Your task to perform on an android device: turn off location history Image 0: 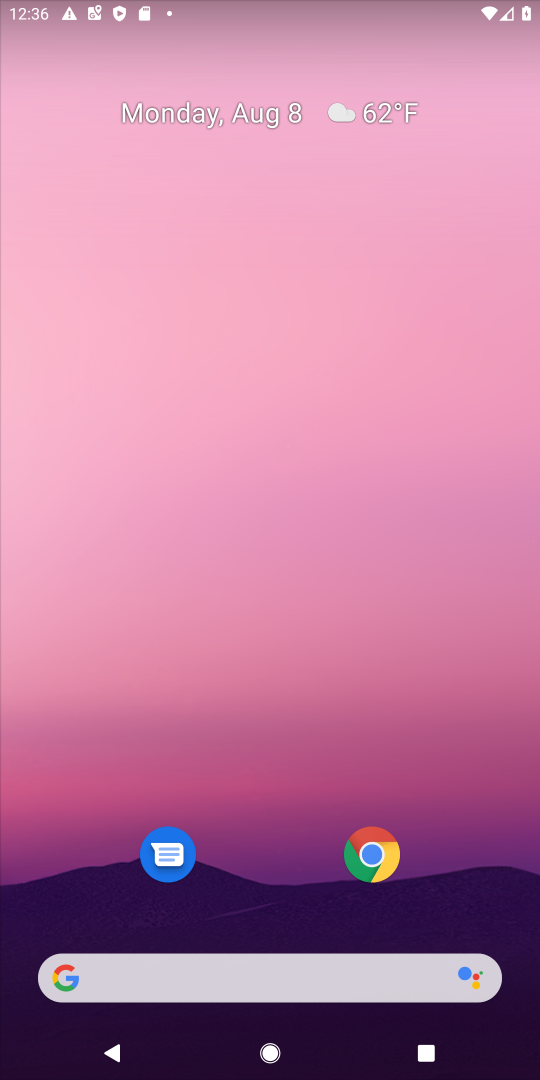
Step 0: drag from (312, 923) to (264, 200)
Your task to perform on an android device: turn off location history Image 1: 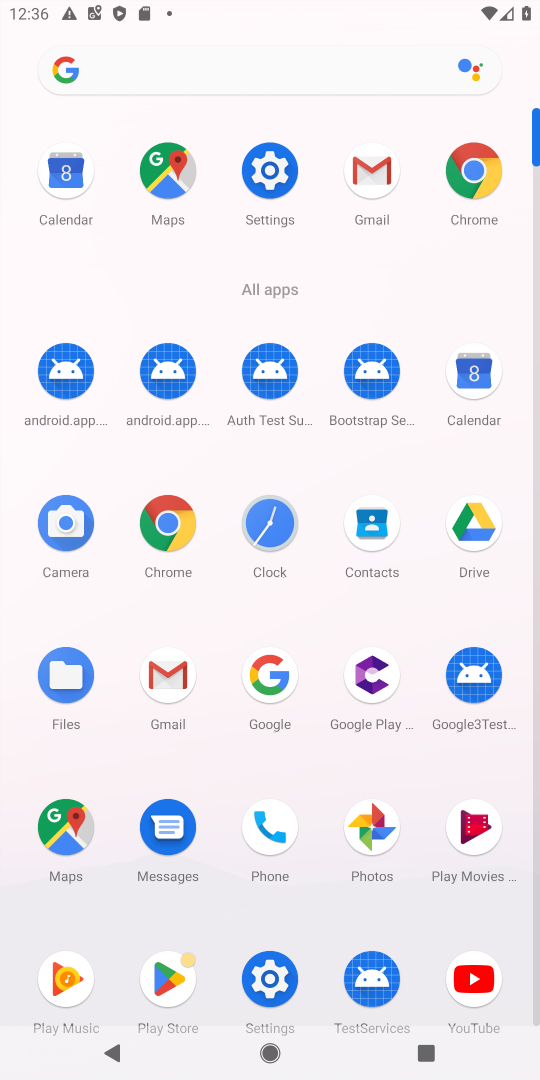
Step 1: click (279, 176)
Your task to perform on an android device: turn off location history Image 2: 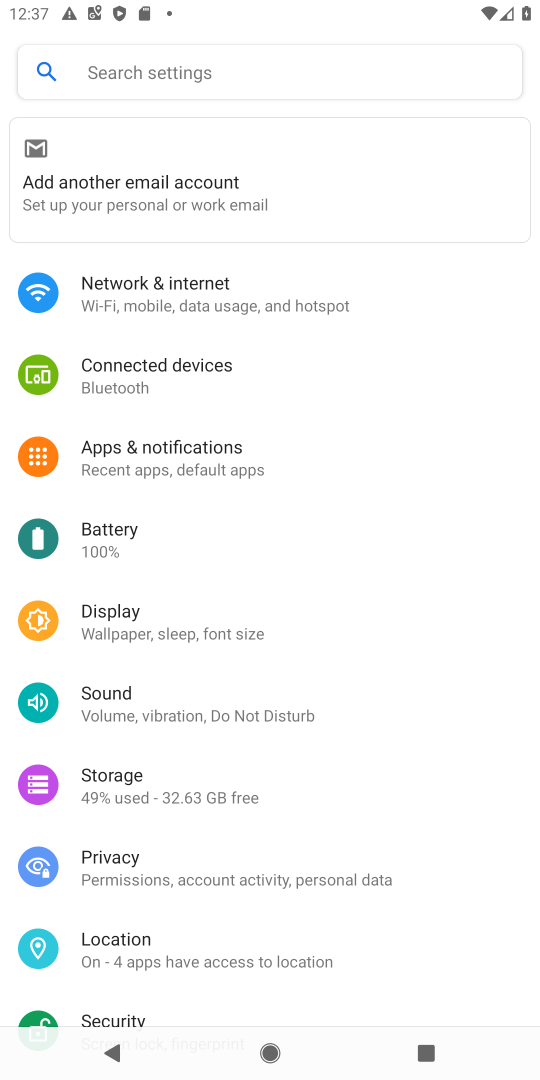
Step 2: click (133, 940)
Your task to perform on an android device: turn off location history Image 3: 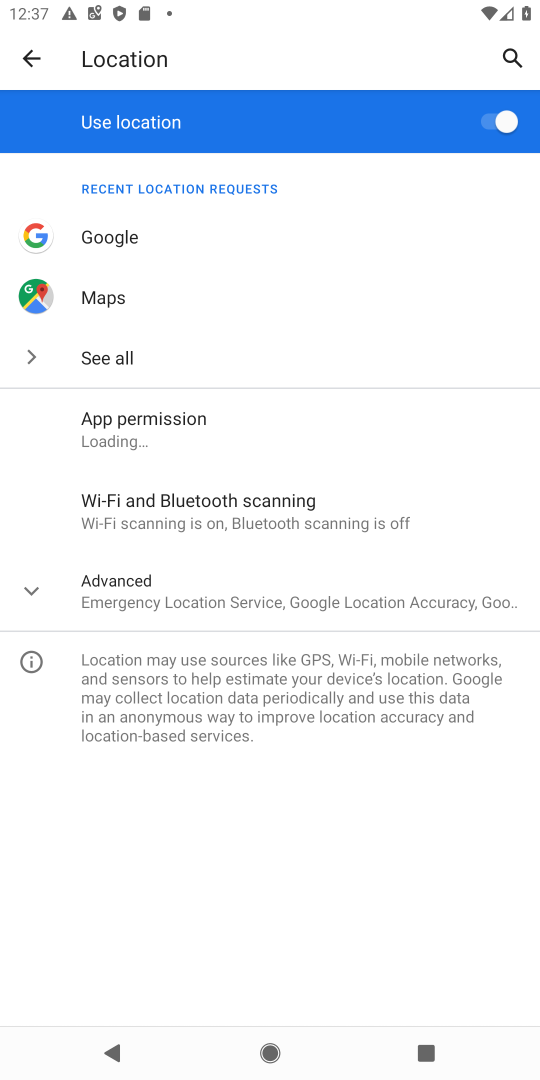
Step 3: click (99, 588)
Your task to perform on an android device: turn off location history Image 4: 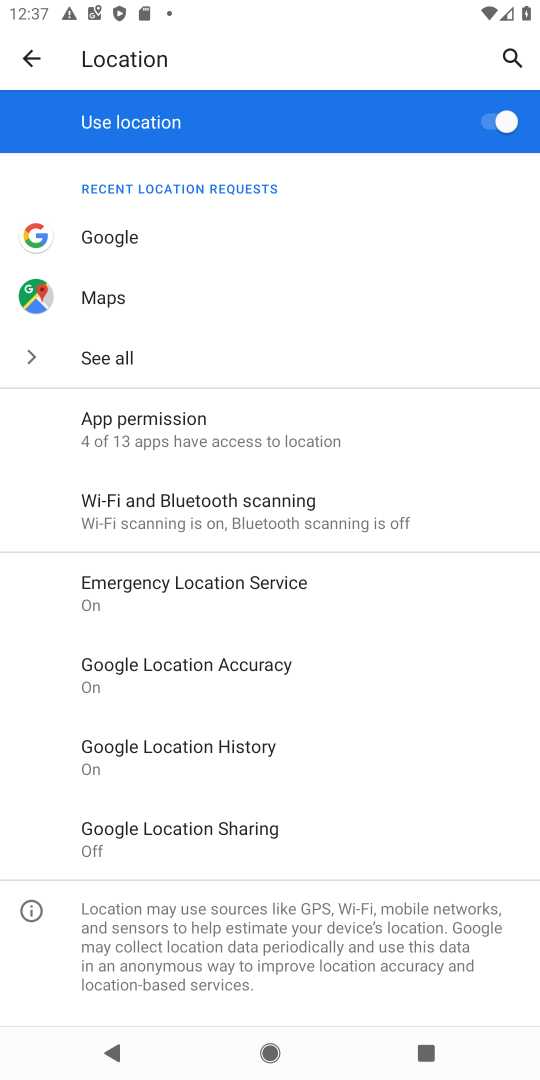
Step 4: click (179, 745)
Your task to perform on an android device: turn off location history Image 5: 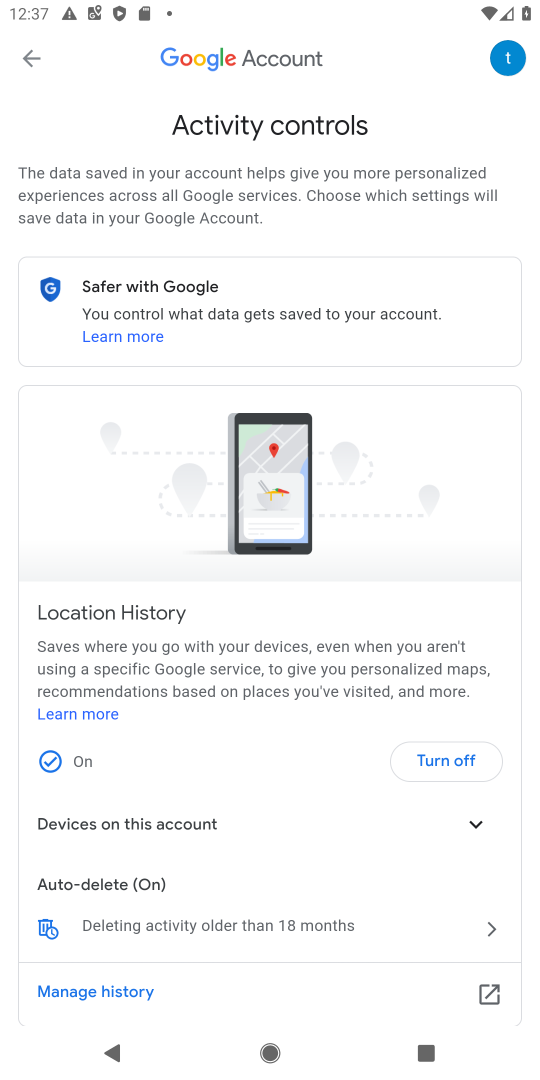
Step 5: click (450, 748)
Your task to perform on an android device: turn off location history Image 6: 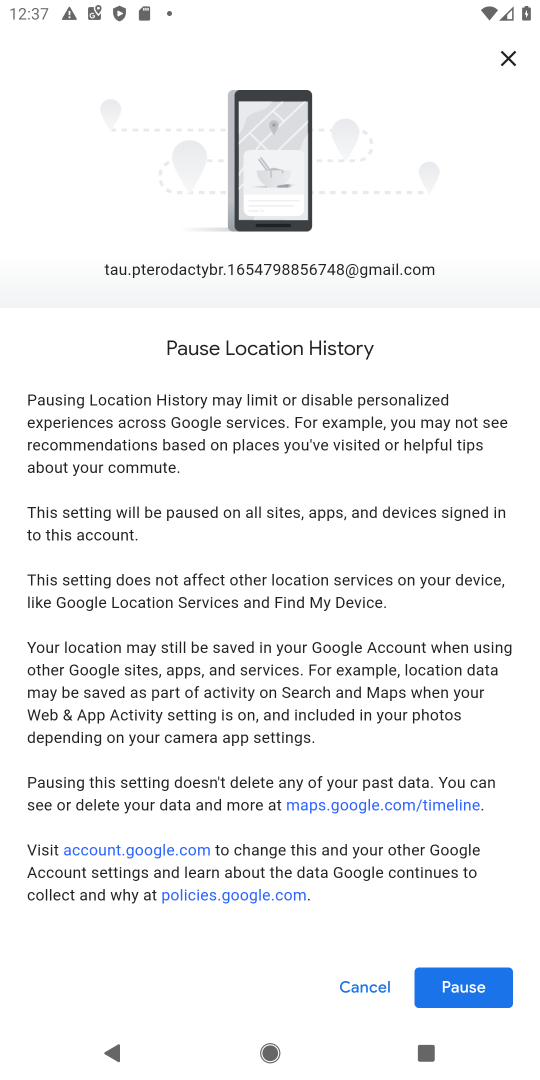
Step 6: click (470, 999)
Your task to perform on an android device: turn off location history Image 7: 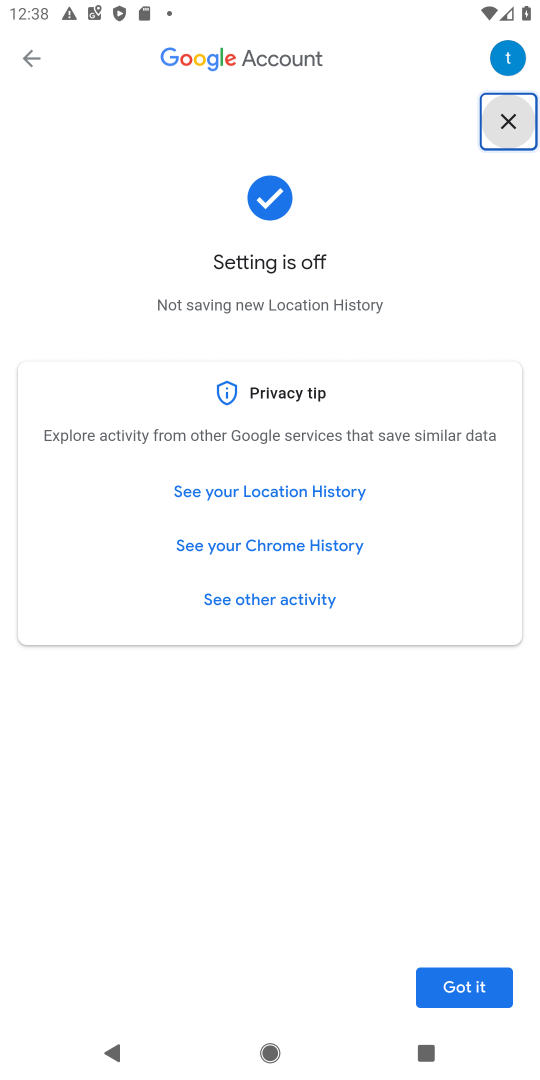
Step 7: click (478, 993)
Your task to perform on an android device: turn off location history Image 8: 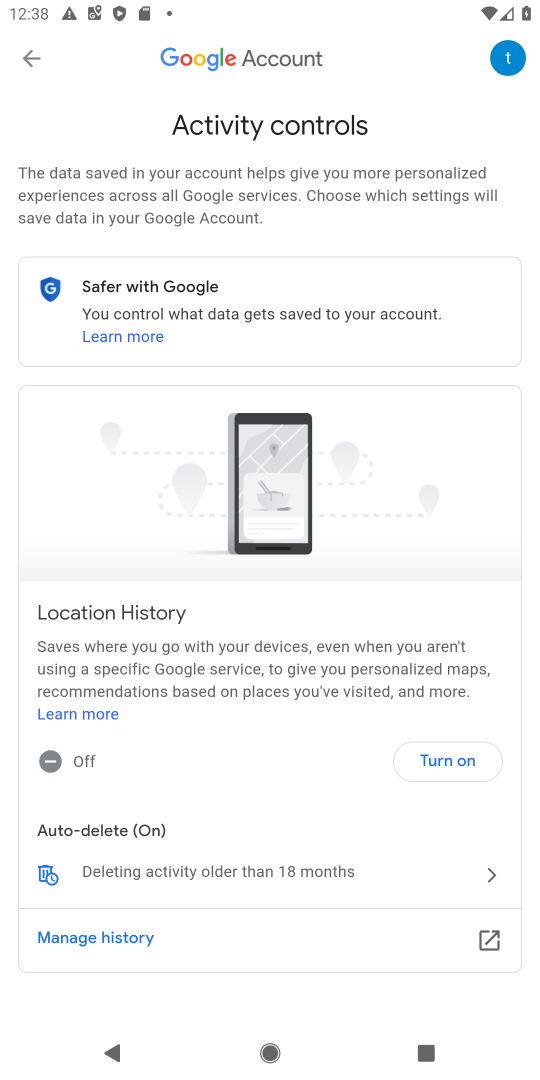
Step 8: task complete